Your task to perform on an android device: turn on airplane mode Image 0: 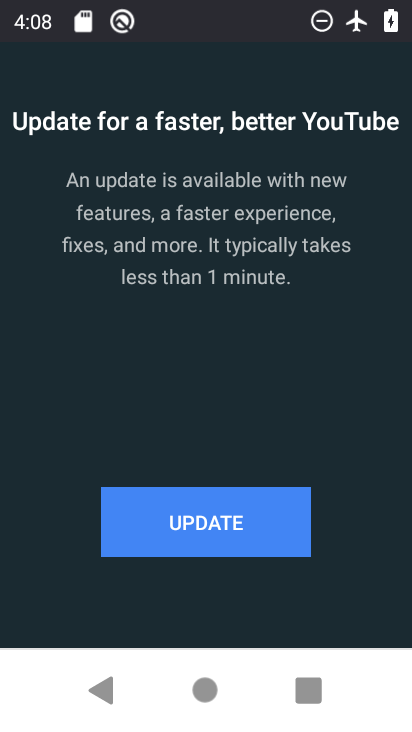
Step 0: press home button
Your task to perform on an android device: turn on airplane mode Image 1: 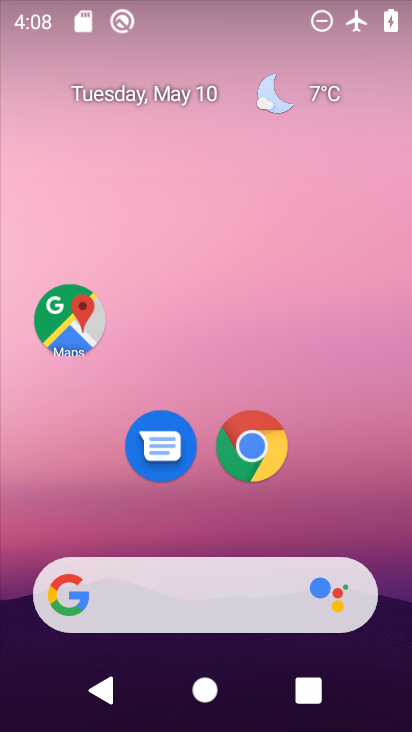
Step 1: drag from (282, 535) to (231, 46)
Your task to perform on an android device: turn on airplane mode Image 2: 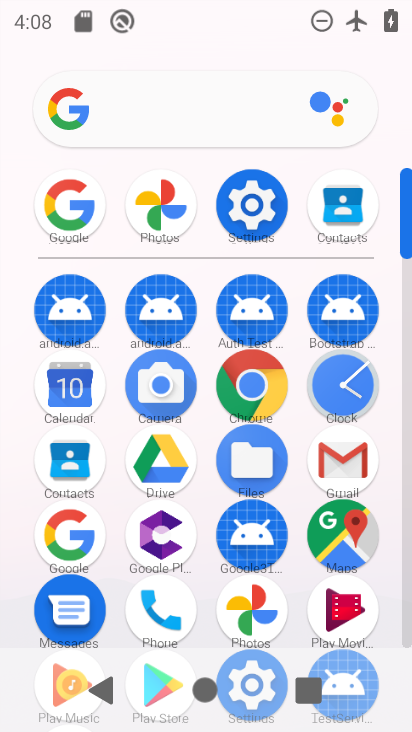
Step 2: click (254, 203)
Your task to perform on an android device: turn on airplane mode Image 3: 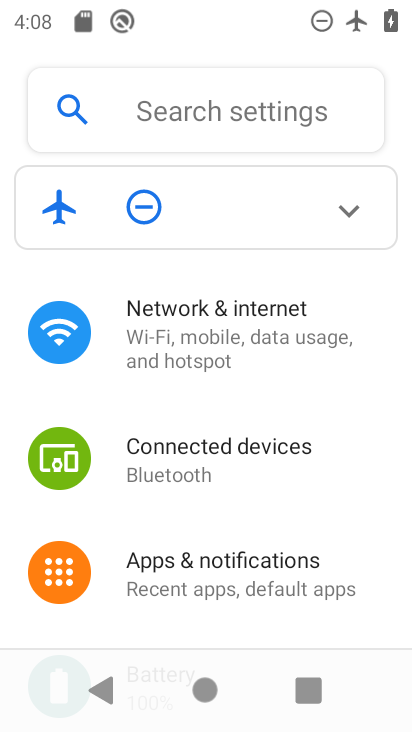
Step 3: click (194, 340)
Your task to perform on an android device: turn on airplane mode Image 4: 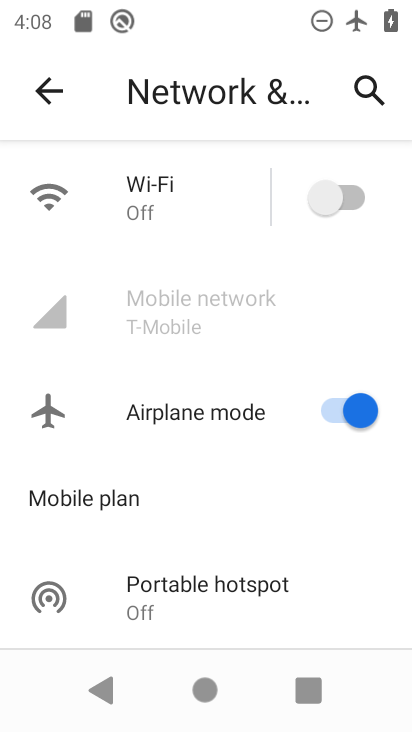
Step 4: task complete